Your task to perform on an android device: change alarm snooze length Image 0: 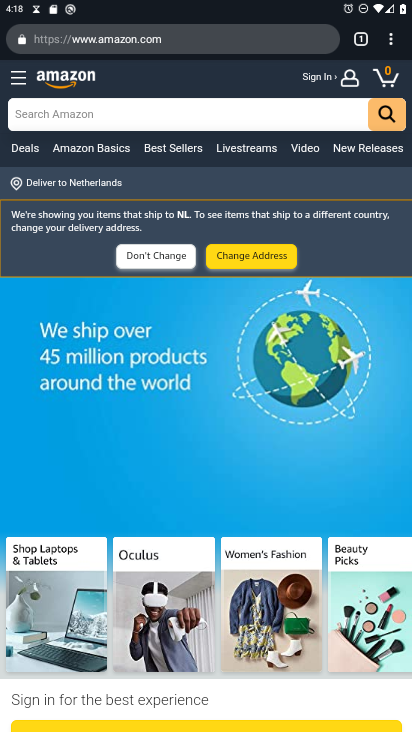
Step 0: press home button
Your task to perform on an android device: change alarm snooze length Image 1: 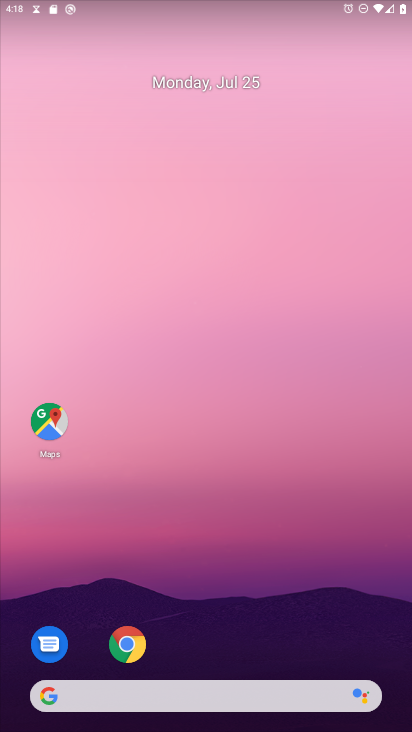
Step 1: drag from (268, 611) to (197, 118)
Your task to perform on an android device: change alarm snooze length Image 2: 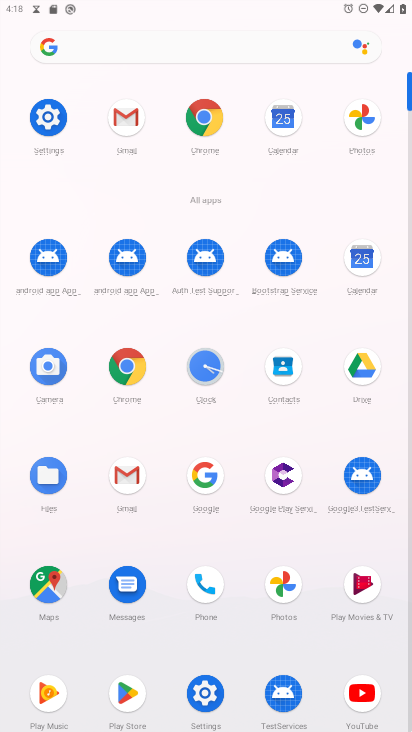
Step 2: click (204, 365)
Your task to perform on an android device: change alarm snooze length Image 3: 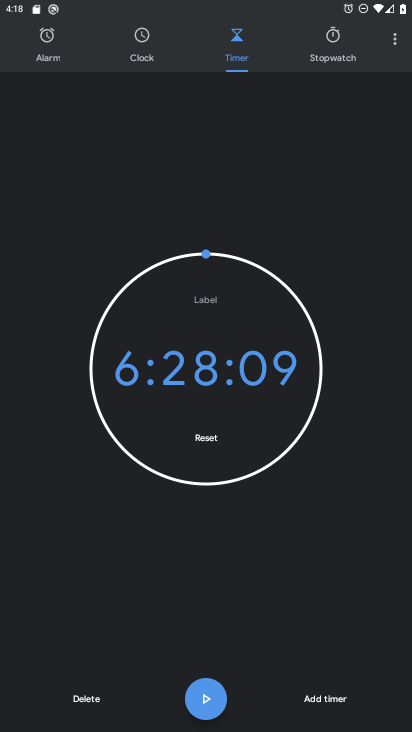
Step 3: click (50, 43)
Your task to perform on an android device: change alarm snooze length Image 4: 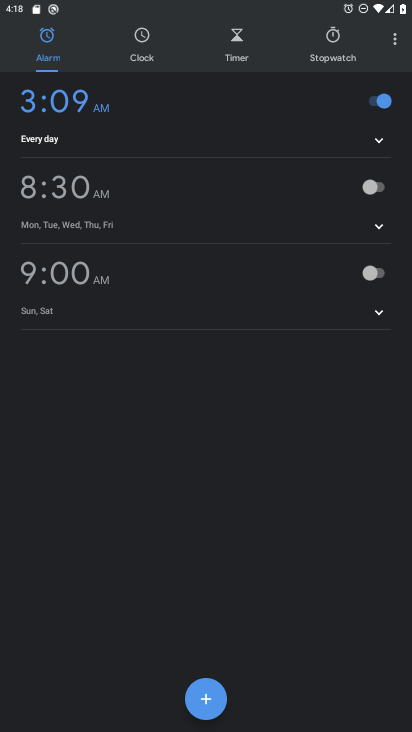
Step 4: click (395, 32)
Your task to perform on an android device: change alarm snooze length Image 5: 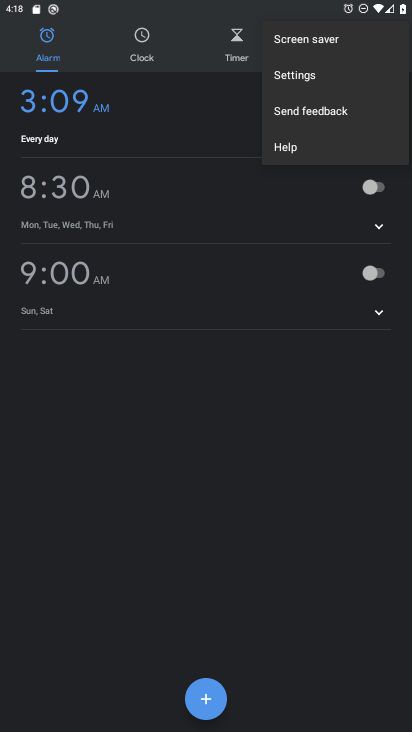
Step 5: click (296, 79)
Your task to perform on an android device: change alarm snooze length Image 6: 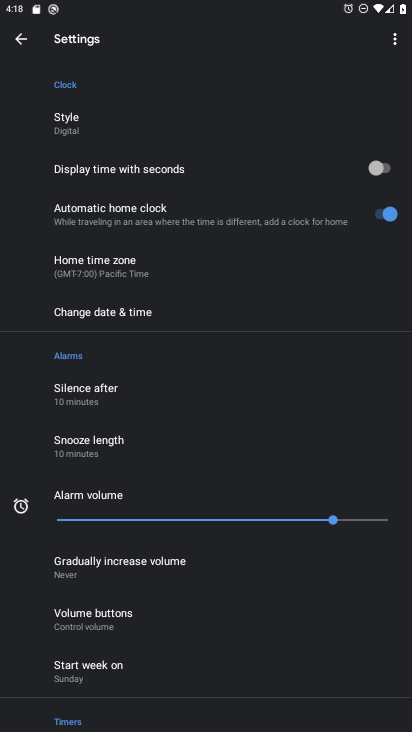
Step 6: drag from (130, 634) to (141, 211)
Your task to perform on an android device: change alarm snooze length Image 7: 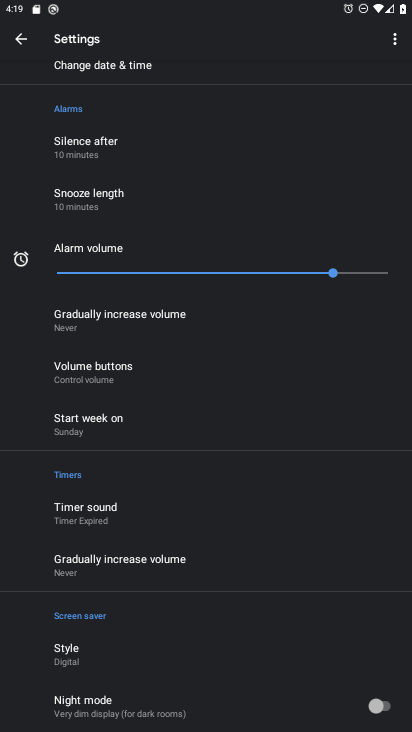
Step 7: click (94, 192)
Your task to perform on an android device: change alarm snooze length Image 8: 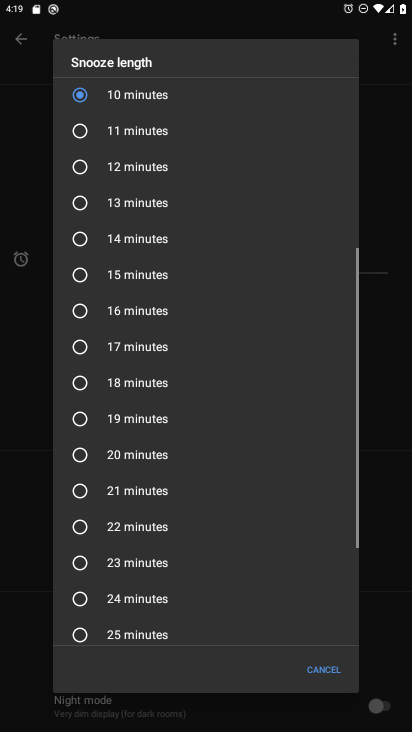
Step 8: click (82, 167)
Your task to perform on an android device: change alarm snooze length Image 9: 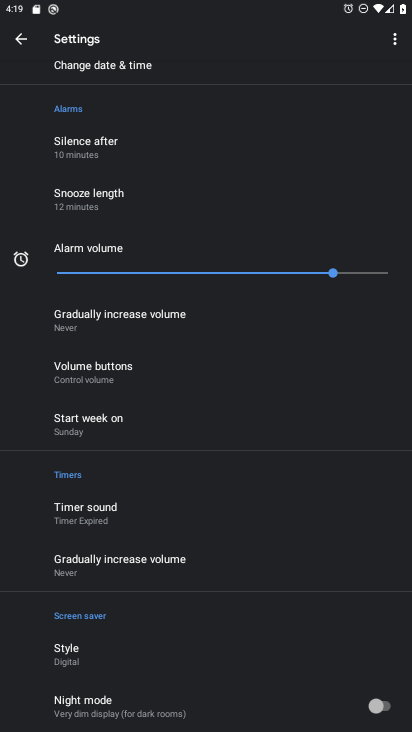
Step 9: task complete